Your task to perform on an android device: Open eBay Image 0: 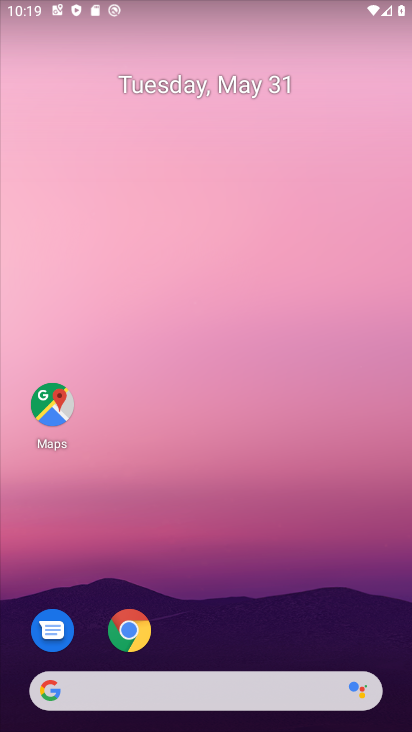
Step 0: drag from (236, 637) to (217, 161)
Your task to perform on an android device: Open eBay Image 1: 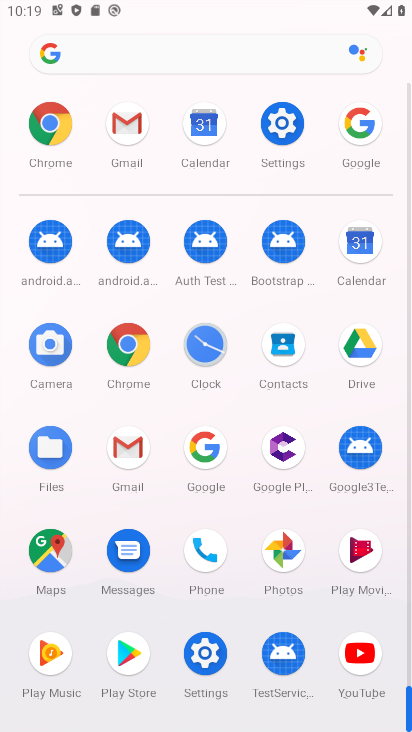
Step 1: click (126, 367)
Your task to perform on an android device: Open eBay Image 2: 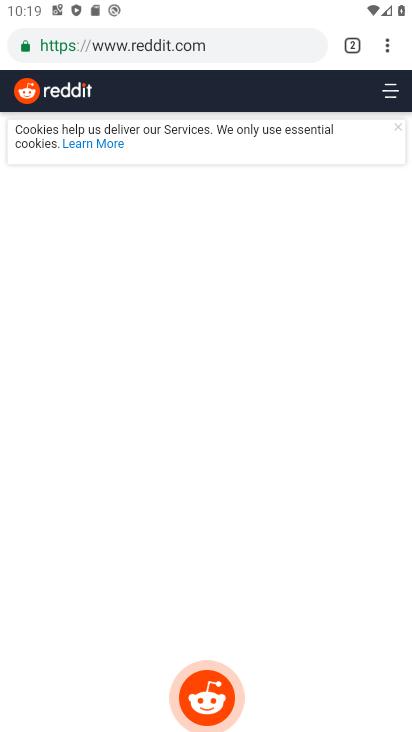
Step 2: click (188, 41)
Your task to perform on an android device: Open eBay Image 3: 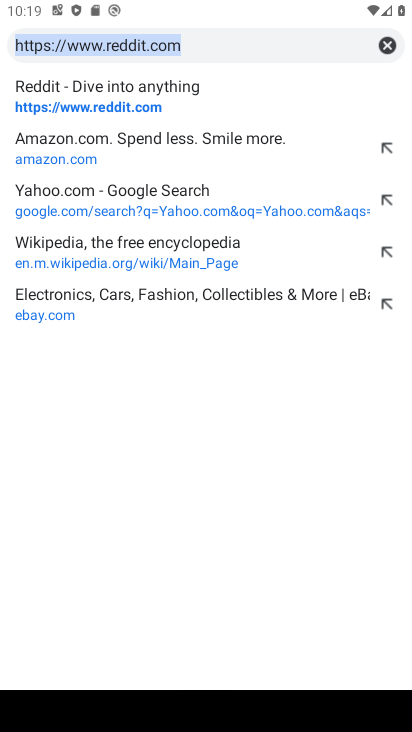
Step 3: click (188, 310)
Your task to perform on an android device: Open eBay Image 4: 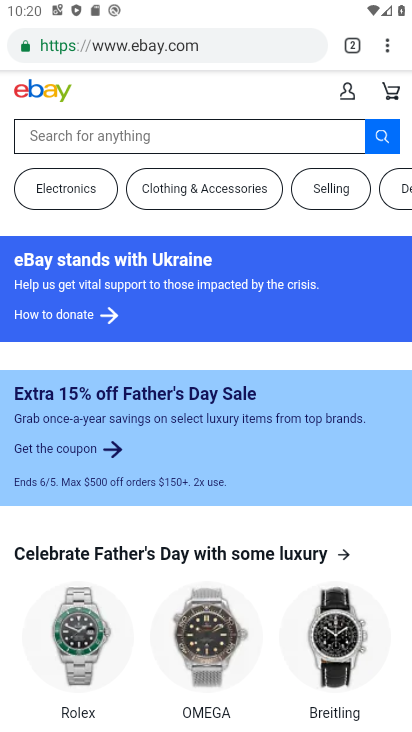
Step 4: task complete